Your task to perform on an android device: read, delete, or share a saved page in the chrome app Image 0: 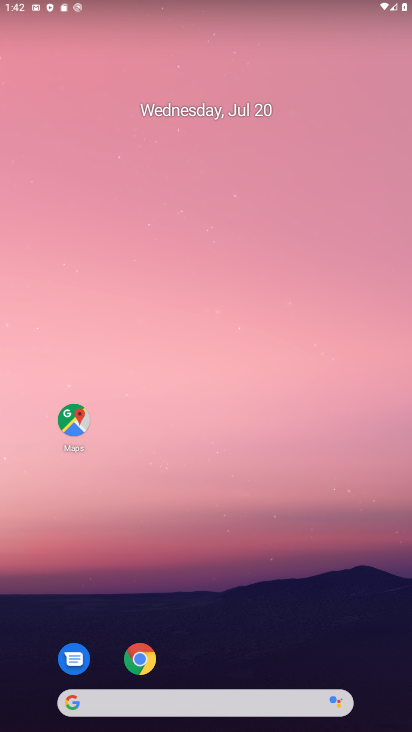
Step 0: click (142, 659)
Your task to perform on an android device: read, delete, or share a saved page in the chrome app Image 1: 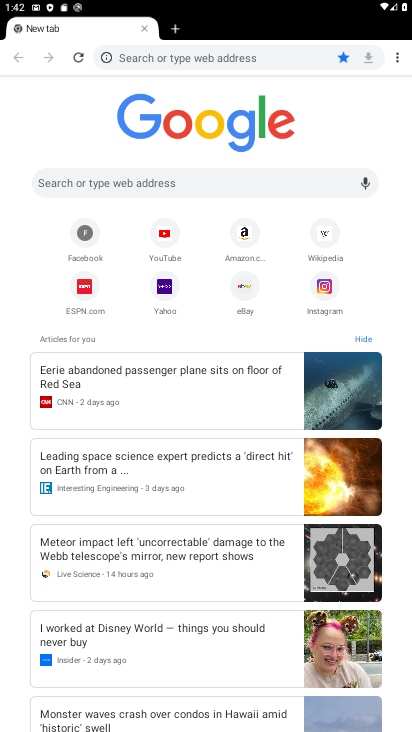
Step 1: click (398, 61)
Your task to perform on an android device: read, delete, or share a saved page in the chrome app Image 2: 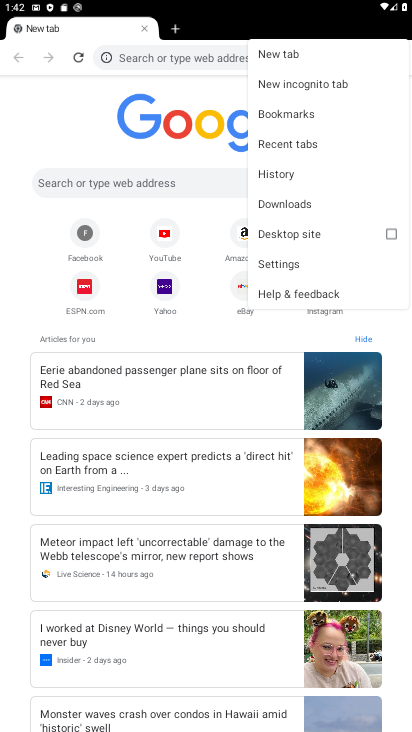
Step 2: click (292, 203)
Your task to perform on an android device: read, delete, or share a saved page in the chrome app Image 3: 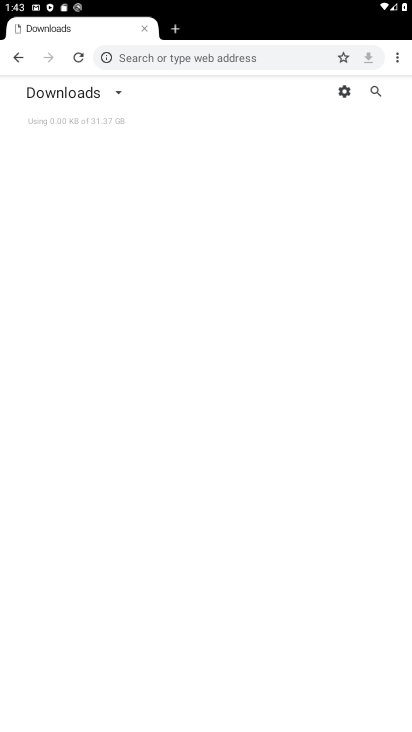
Step 3: task complete